Your task to perform on an android device: turn on translation in the chrome app Image 0: 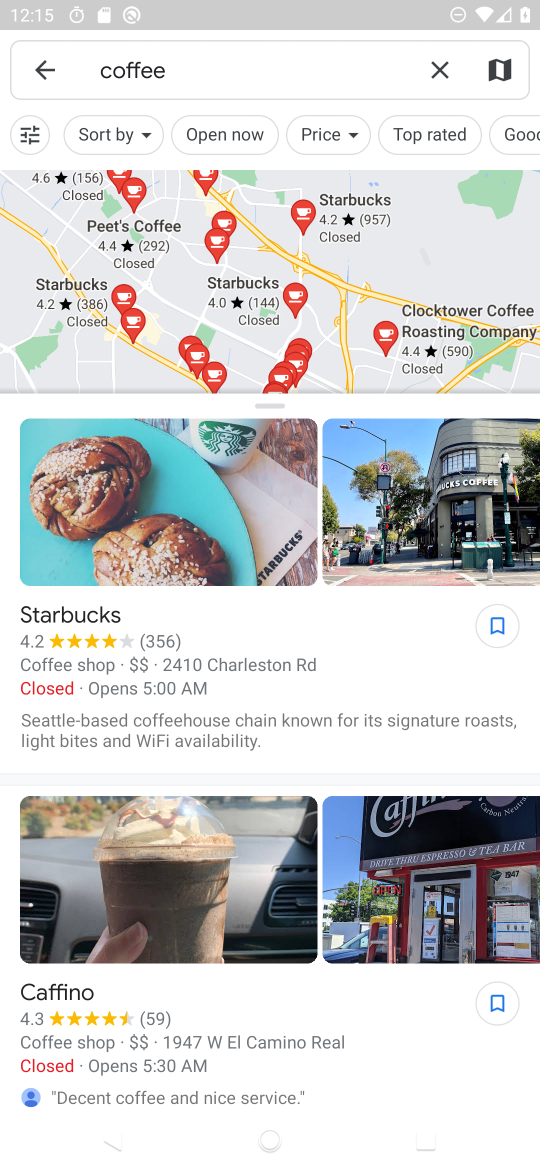
Step 0: press home button
Your task to perform on an android device: turn on translation in the chrome app Image 1: 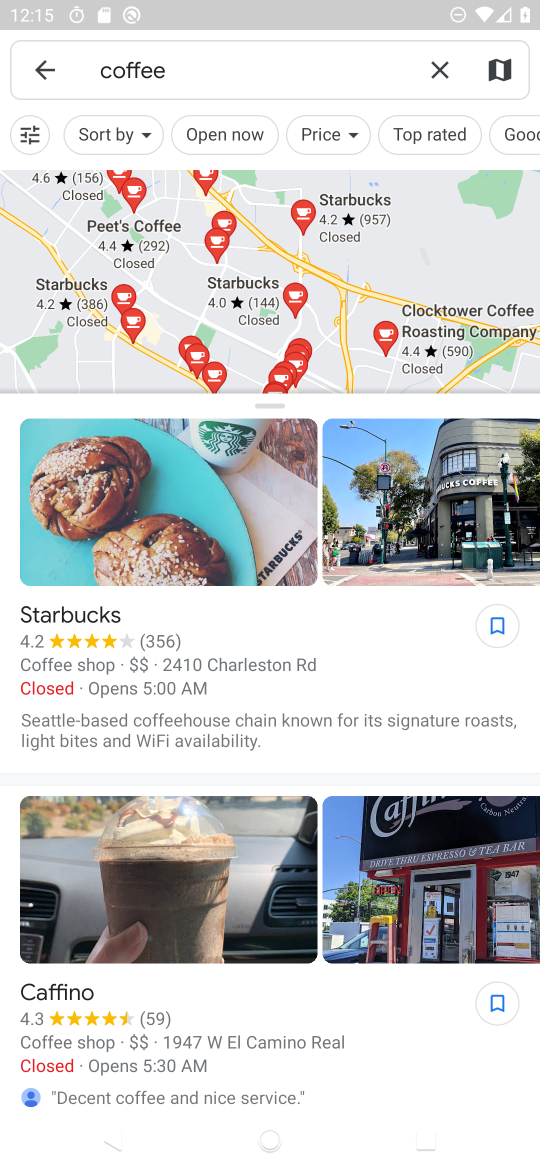
Step 1: press home button
Your task to perform on an android device: turn on translation in the chrome app Image 2: 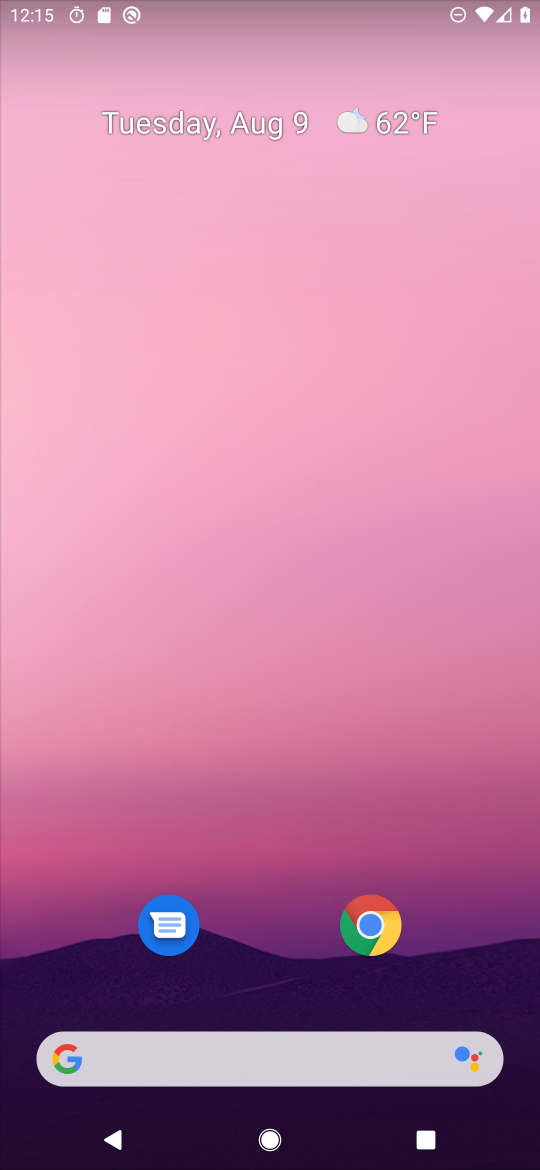
Step 2: drag from (256, 862) to (313, 73)
Your task to perform on an android device: turn on translation in the chrome app Image 3: 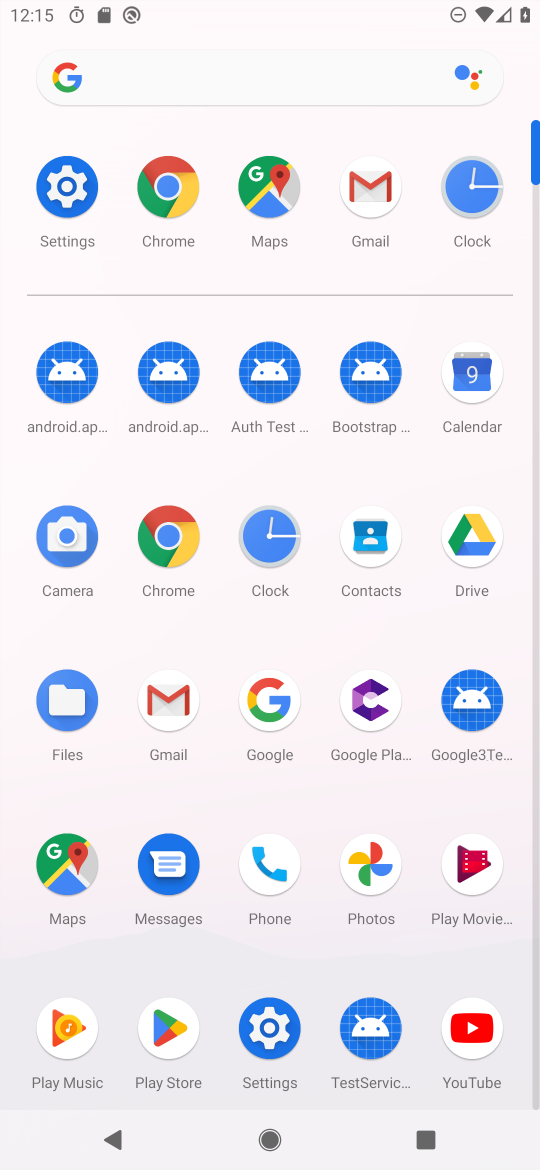
Step 3: click (172, 536)
Your task to perform on an android device: turn on translation in the chrome app Image 4: 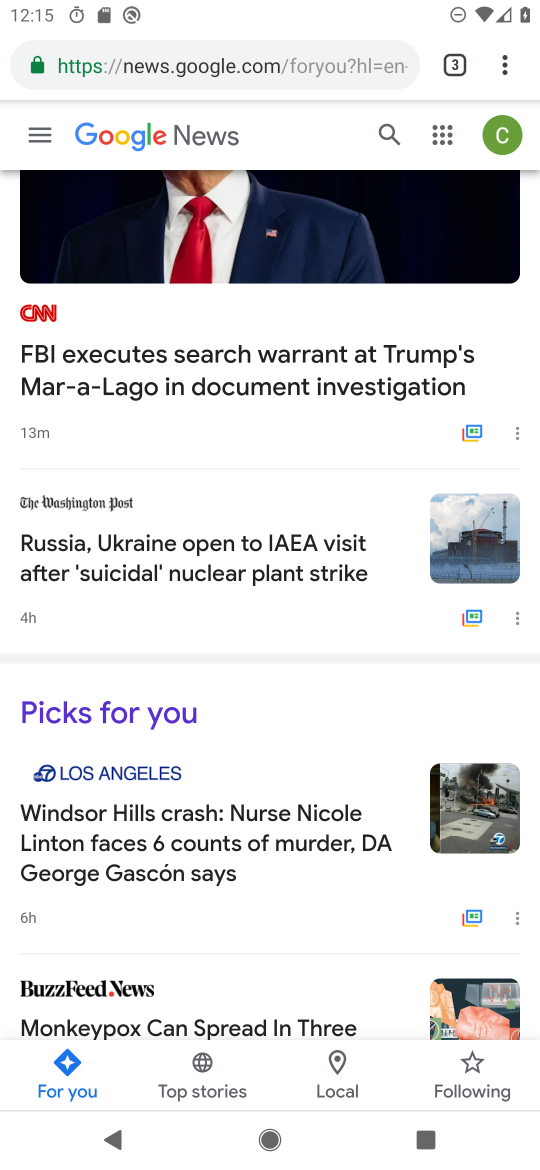
Step 4: drag from (515, 67) to (276, 855)
Your task to perform on an android device: turn on translation in the chrome app Image 5: 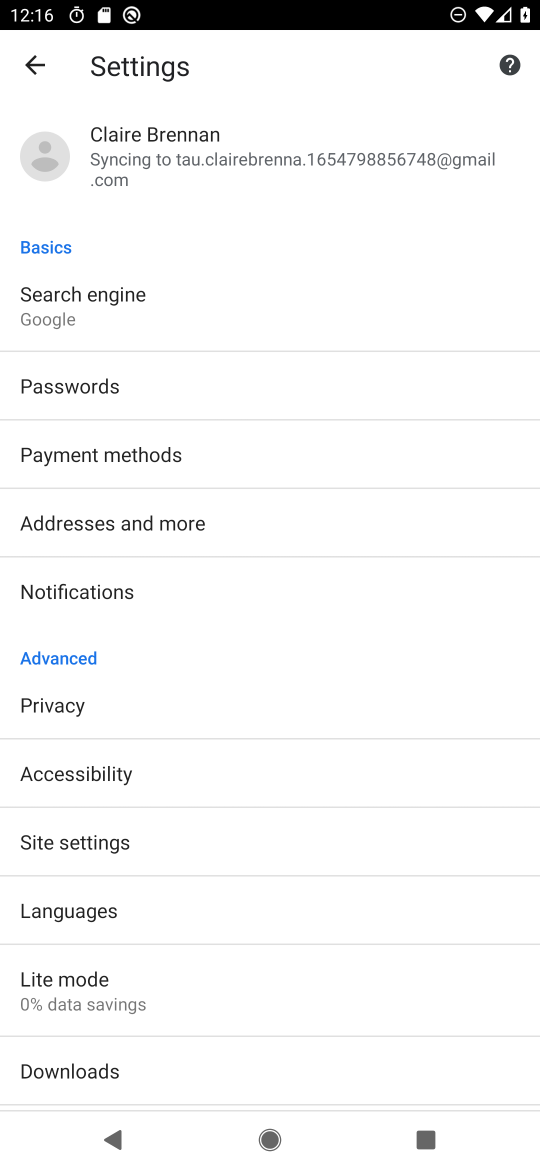
Step 5: click (119, 594)
Your task to perform on an android device: turn on translation in the chrome app Image 6: 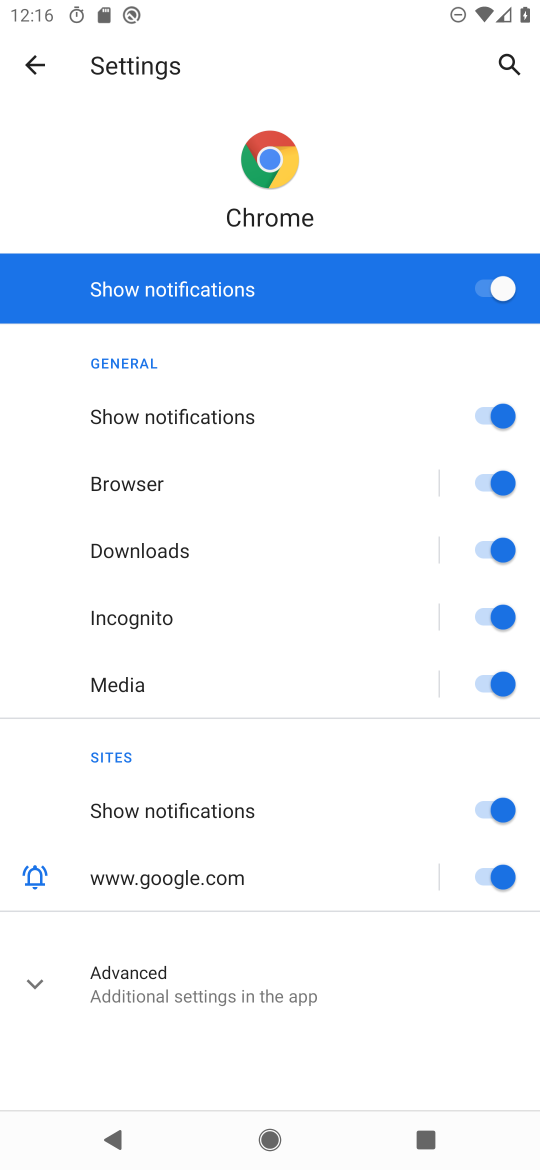
Step 6: task complete